Your task to perform on an android device: change the clock display to show seconds Image 0: 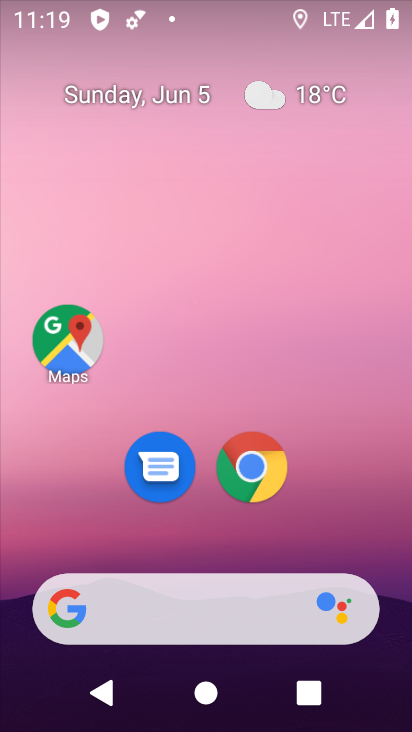
Step 0: drag from (293, 560) to (206, 35)
Your task to perform on an android device: change the clock display to show seconds Image 1: 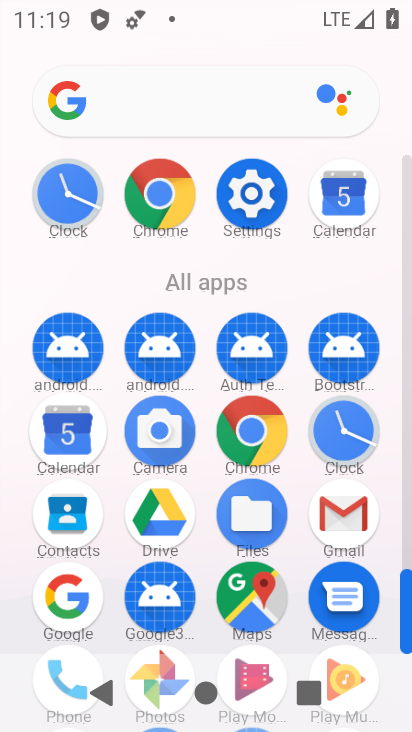
Step 1: click (333, 416)
Your task to perform on an android device: change the clock display to show seconds Image 2: 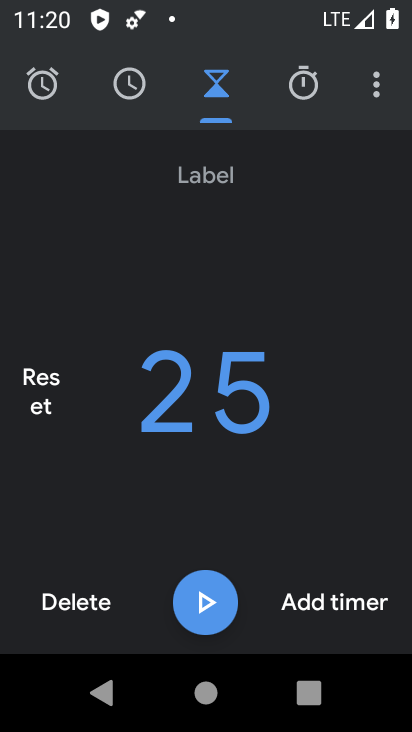
Step 2: click (380, 84)
Your task to perform on an android device: change the clock display to show seconds Image 3: 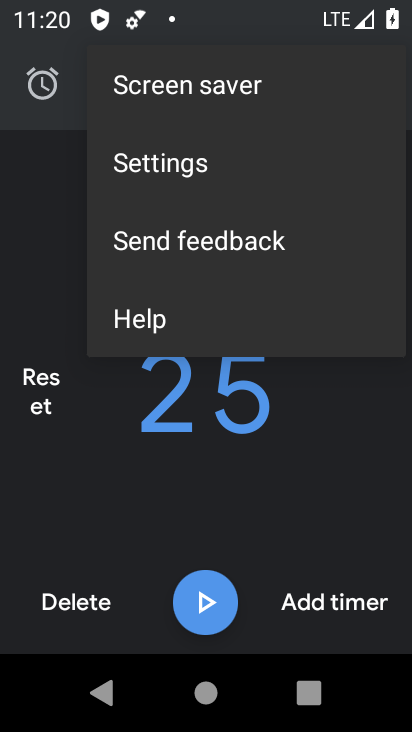
Step 3: click (186, 160)
Your task to perform on an android device: change the clock display to show seconds Image 4: 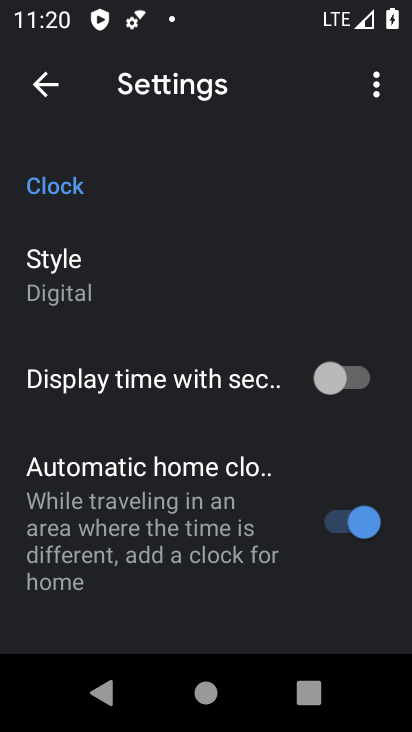
Step 4: click (330, 386)
Your task to perform on an android device: change the clock display to show seconds Image 5: 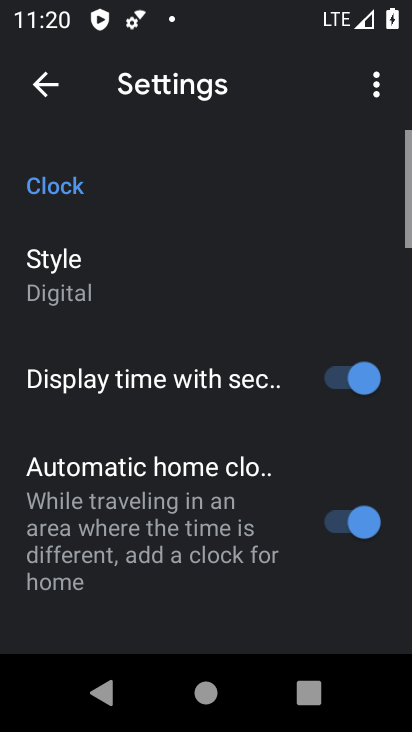
Step 5: task complete